Your task to perform on an android device: Search for seafood restaurants on Google Maps Image 0: 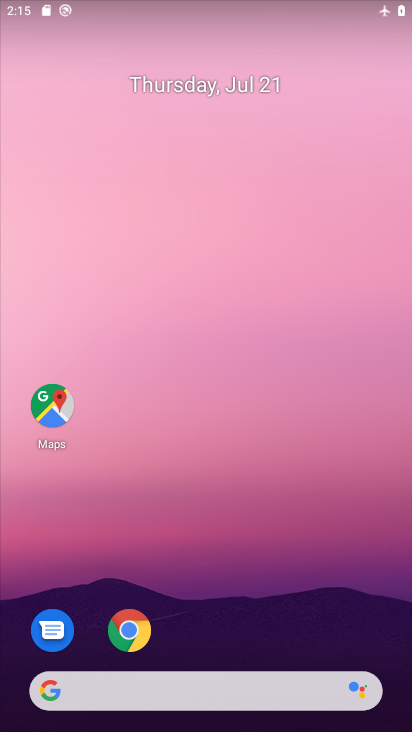
Step 0: drag from (175, 679) to (71, 268)
Your task to perform on an android device: Search for seafood restaurants on Google Maps Image 1: 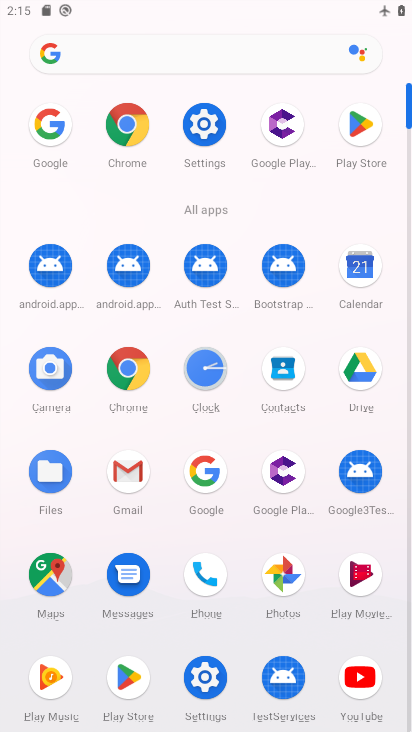
Step 1: click (37, 568)
Your task to perform on an android device: Search for seafood restaurants on Google Maps Image 2: 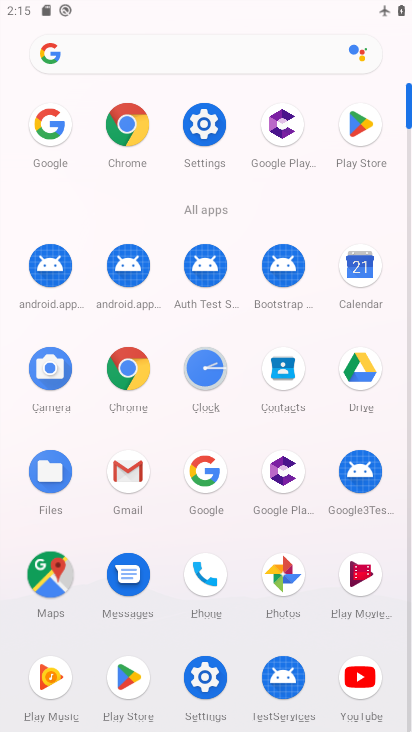
Step 2: click (37, 568)
Your task to perform on an android device: Search for seafood restaurants on Google Maps Image 3: 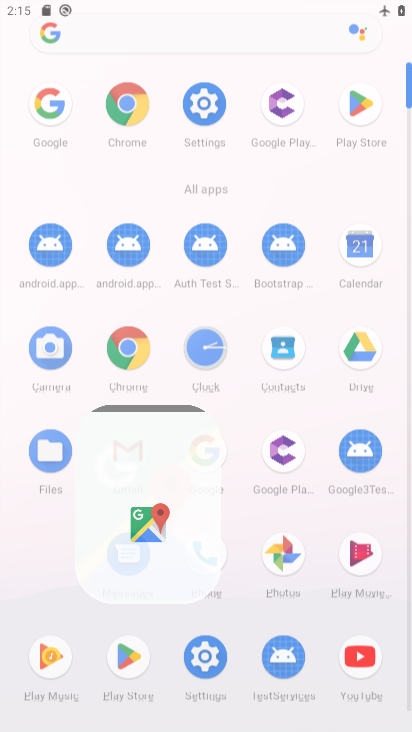
Step 3: click (39, 568)
Your task to perform on an android device: Search for seafood restaurants on Google Maps Image 4: 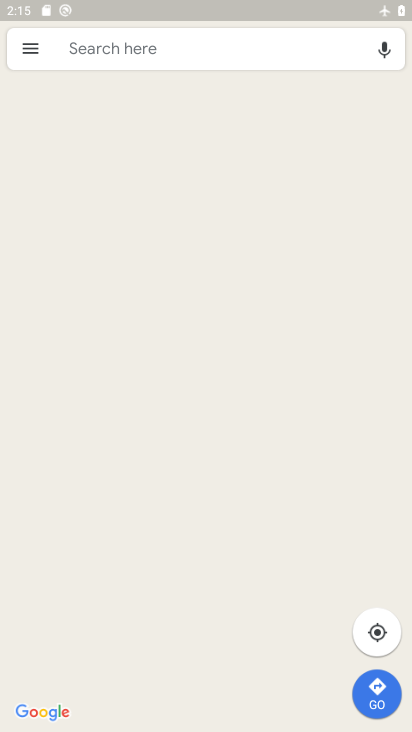
Step 4: click (76, 44)
Your task to perform on an android device: Search for seafood restaurants on Google Maps Image 5: 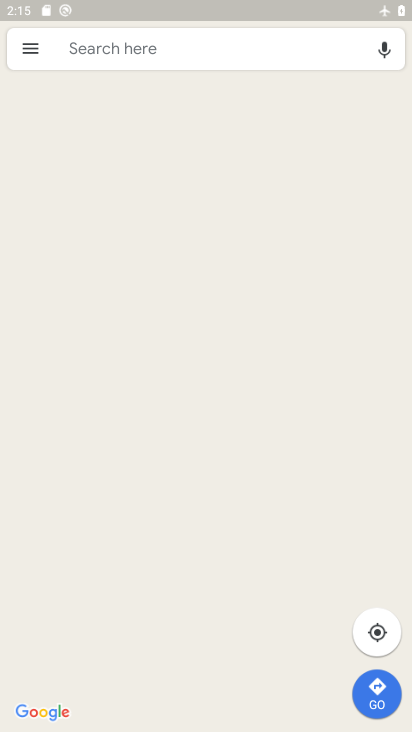
Step 5: click (88, 52)
Your task to perform on an android device: Search for seafood restaurants on Google Maps Image 6: 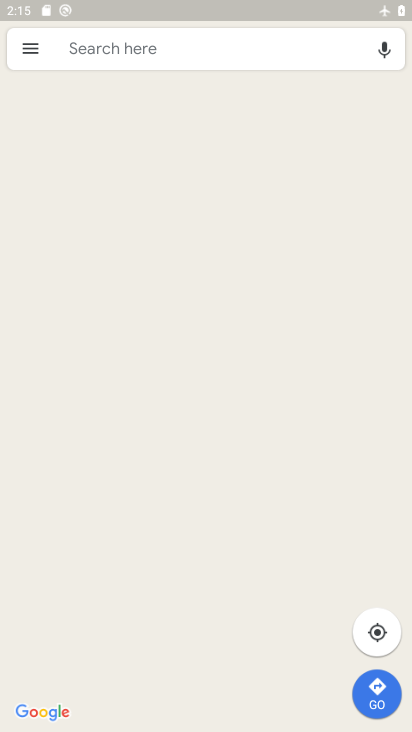
Step 6: click (94, 53)
Your task to perform on an android device: Search for seafood restaurants on Google Maps Image 7: 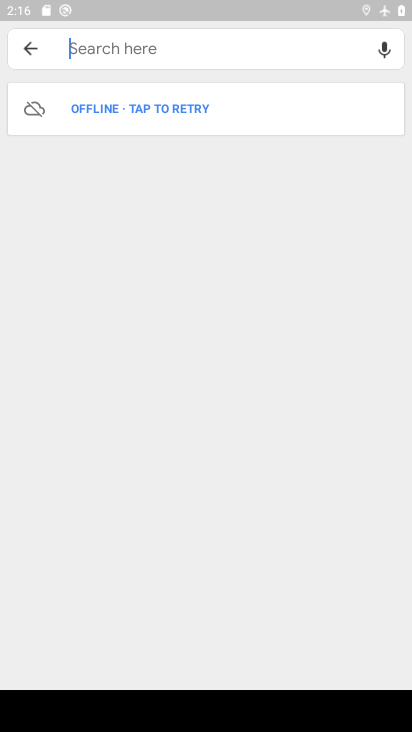
Step 7: type "seafood restaurants?"
Your task to perform on an android device: Search for seafood restaurants on Google Maps Image 8: 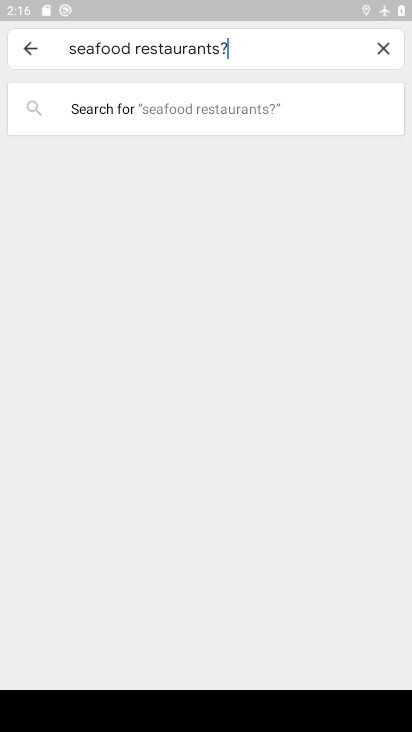
Step 8: click (197, 120)
Your task to perform on an android device: Search for seafood restaurants on Google Maps Image 9: 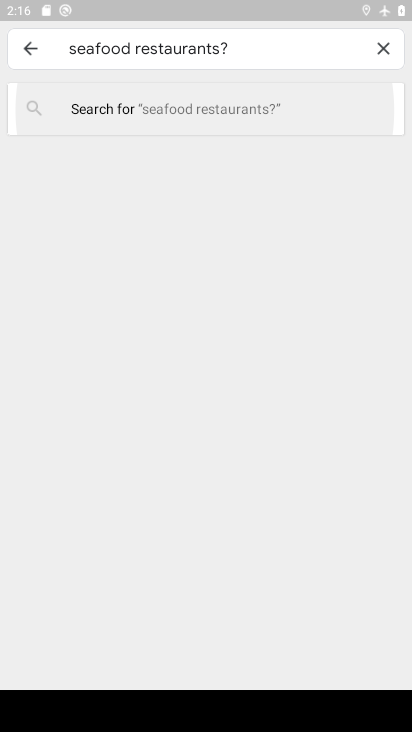
Step 9: click (203, 111)
Your task to perform on an android device: Search for seafood restaurants on Google Maps Image 10: 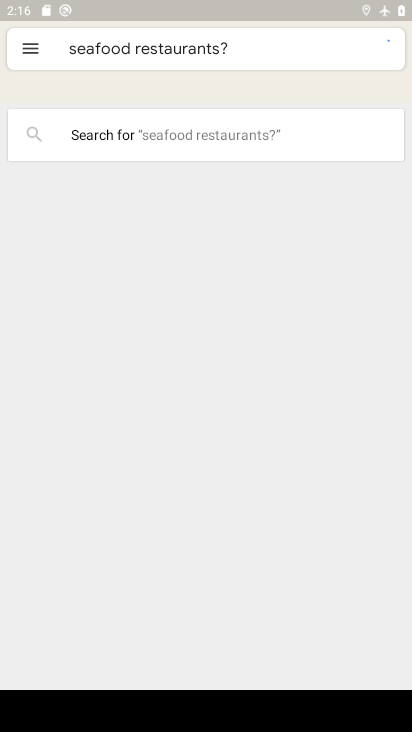
Step 10: click (204, 110)
Your task to perform on an android device: Search for seafood restaurants on Google Maps Image 11: 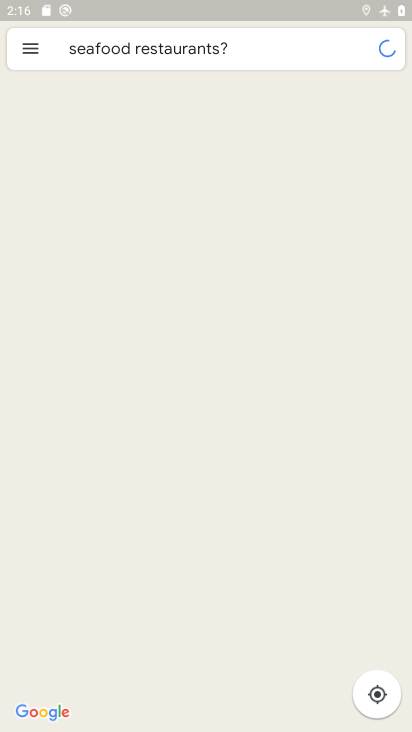
Step 11: click (203, 109)
Your task to perform on an android device: Search for seafood restaurants on Google Maps Image 12: 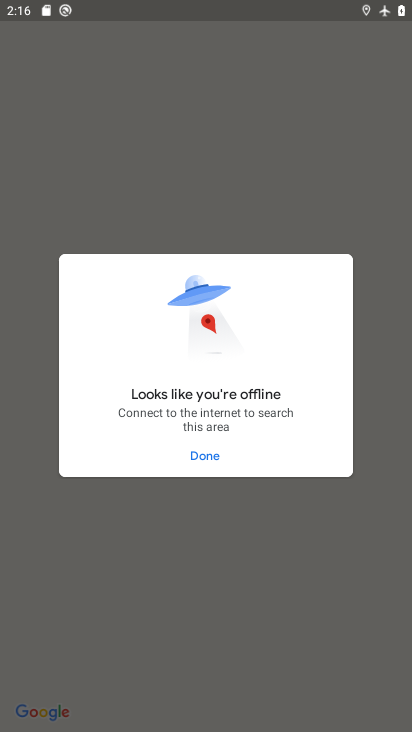
Step 12: task complete